Your task to perform on an android device: change the clock display to digital Image 0: 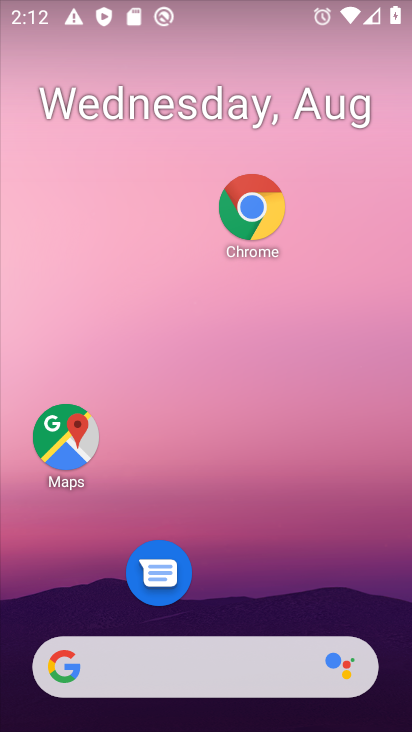
Step 0: drag from (219, 664) to (219, 53)
Your task to perform on an android device: change the clock display to digital Image 1: 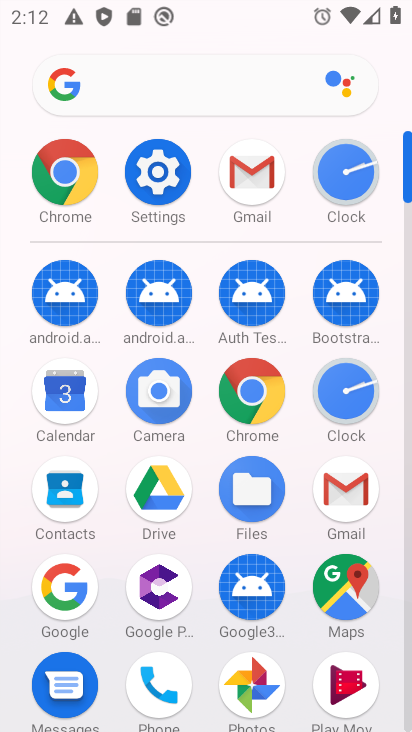
Step 1: drag from (199, 505) to (279, 92)
Your task to perform on an android device: change the clock display to digital Image 2: 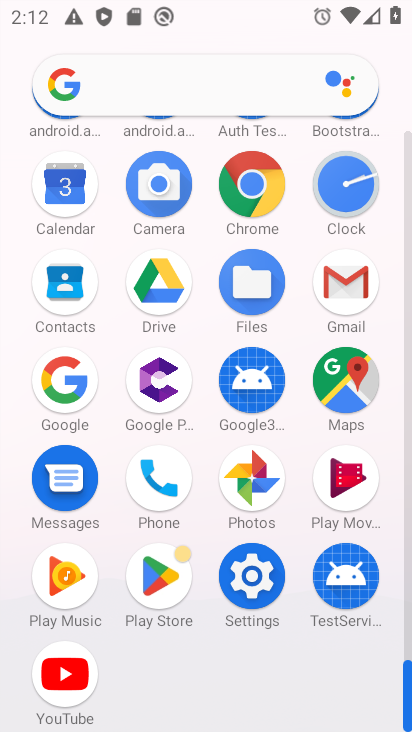
Step 2: click (349, 190)
Your task to perform on an android device: change the clock display to digital Image 3: 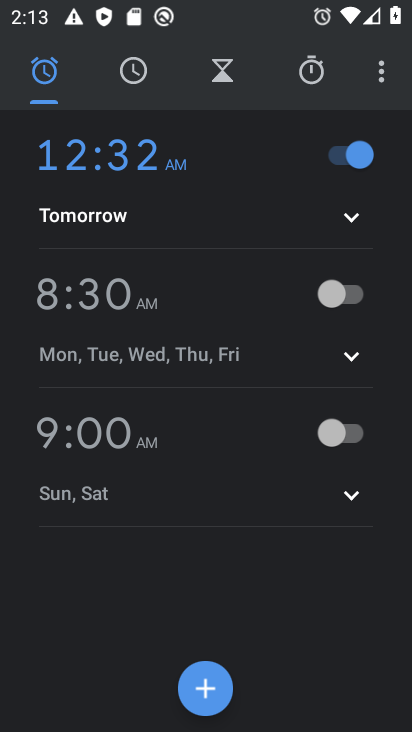
Step 3: click (378, 82)
Your task to perform on an android device: change the clock display to digital Image 4: 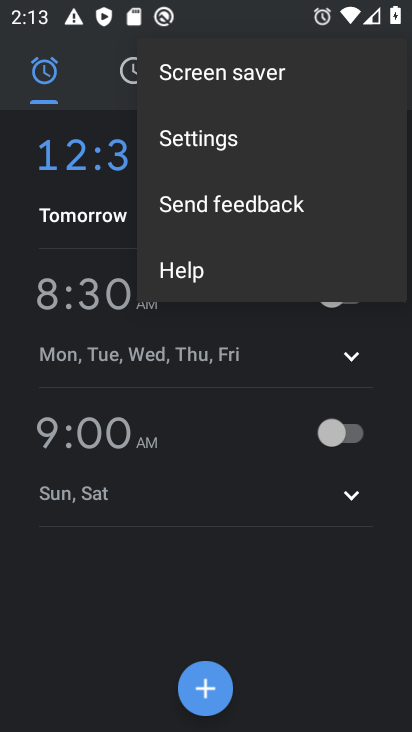
Step 4: click (234, 134)
Your task to perform on an android device: change the clock display to digital Image 5: 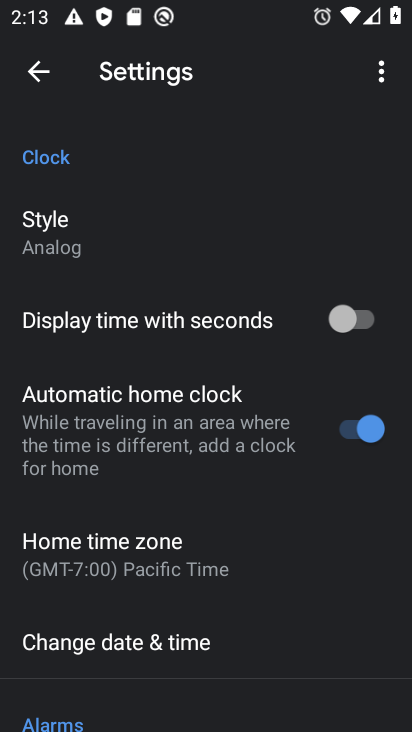
Step 5: click (121, 240)
Your task to perform on an android device: change the clock display to digital Image 6: 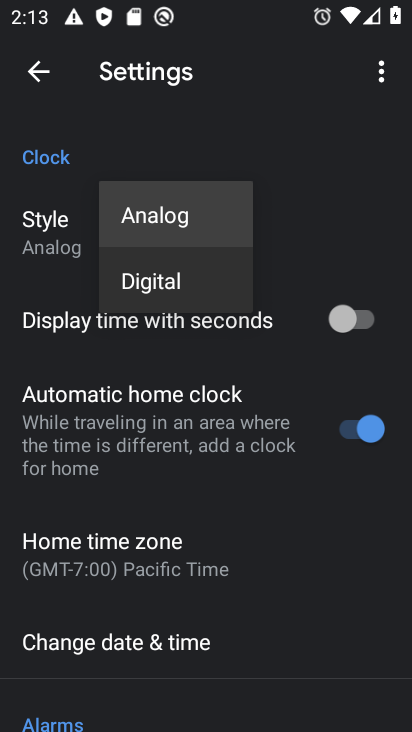
Step 6: click (156, 276)
Your task to perform on an android device: change the clock display to digital Image 7: 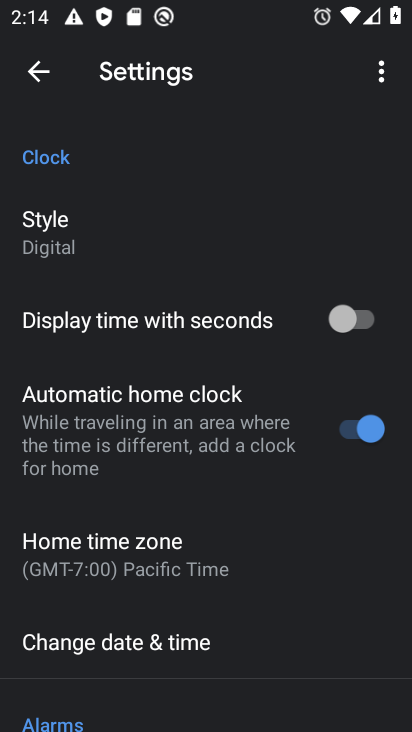
Step 7: task complete